Your task to perform on an android device: Go to ESPN.com Image 0: 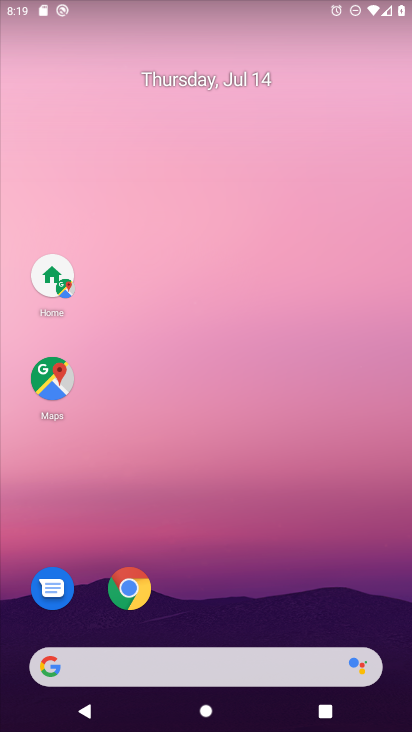
Step 0: click (157, 665)
Your task to perform on an android device: Go to ESPN.com Image 1: 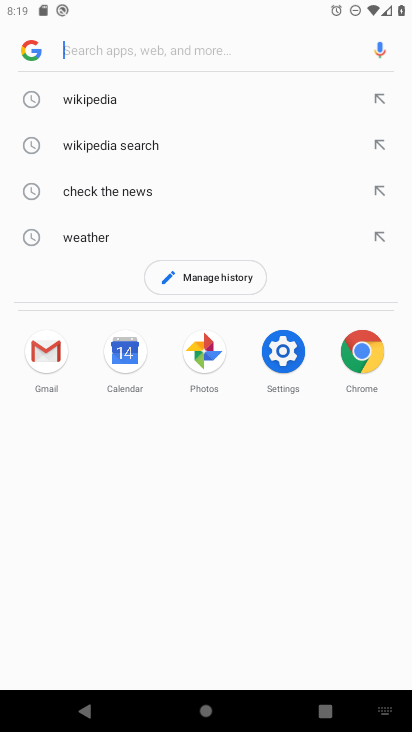
Step 1: type "ESPN.com"
Your task to perform on an android device: Go to ESPN.com Image 2: 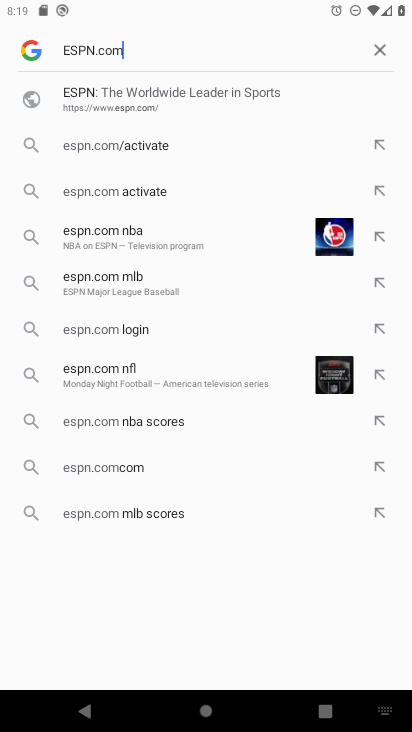
Step 2: type ""
Your task to perform on an android device: Go to ESPN.com Image 3: 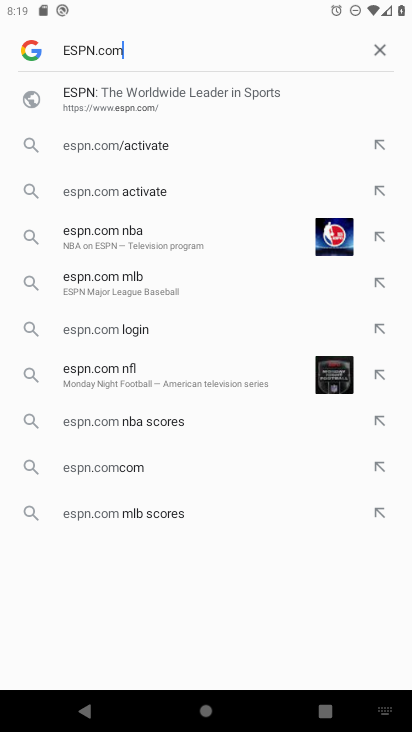
Step 3: click (78, 88)
Your task to perform on an android device: Go to ESPN.com Image 4: 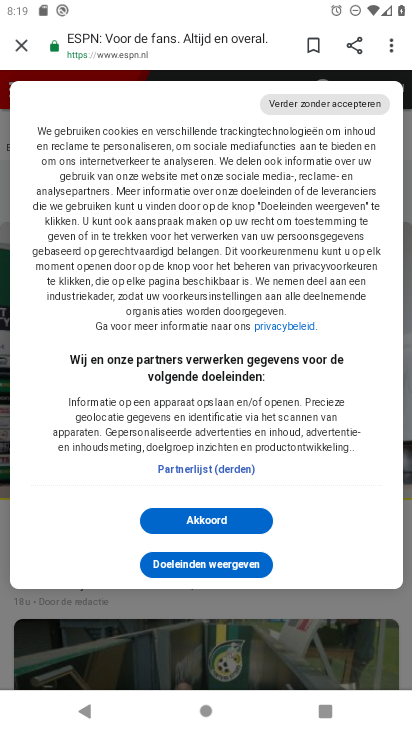
Step 4: task complete